Your task to perform on an android device: Go to eBay Image 0: 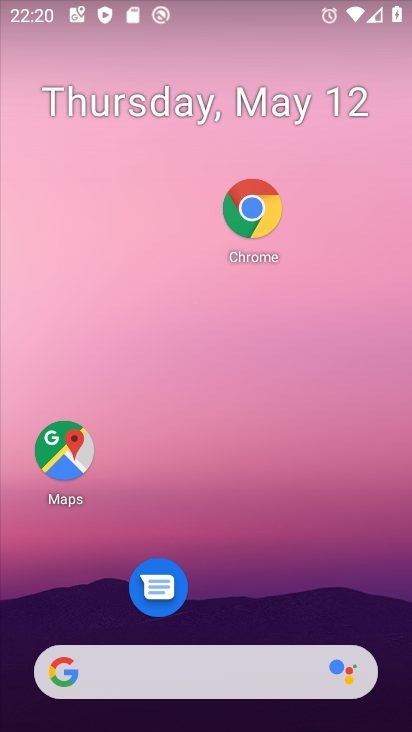
Step 0: click (251, 234)
Your task to perform on an android device: Go to eBay Image 1: 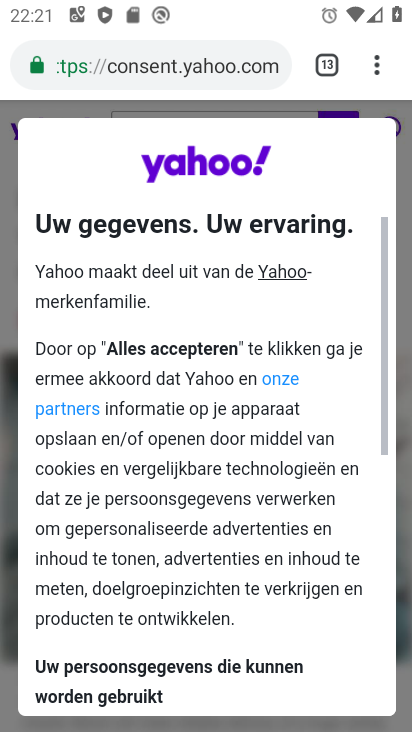
Step 1: click (365, 50)
Your task to perform on an android device: Go to eBay Image 2: 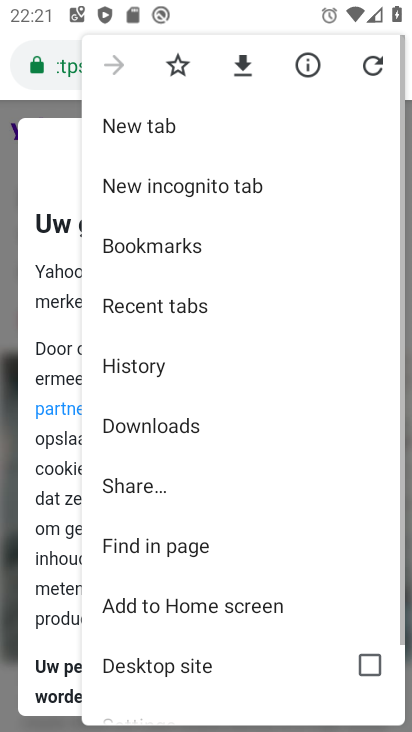
Step 2: click (177, 124)
Your task to perform on an android device: Go to eBay Image 3: 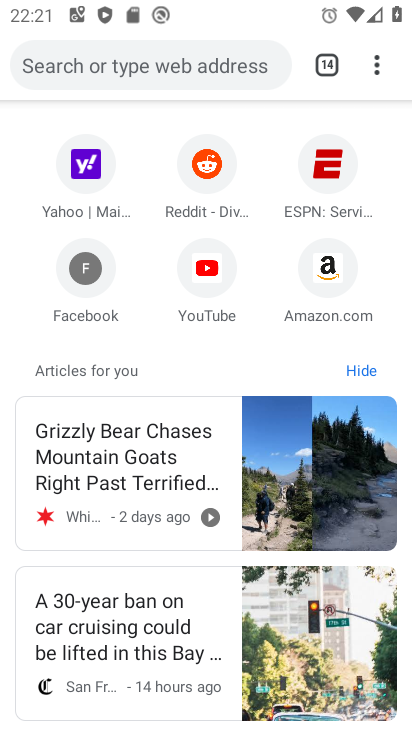
Step 3: click (188, 52)
Your task to perform on an android device: Go to eBay Image 4: 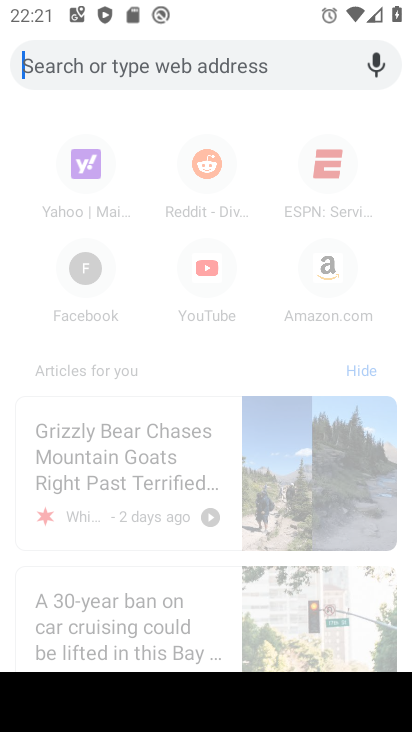
Step 4: type " eBay"
Your task to perform on an android device: Go to eBay Image 5: 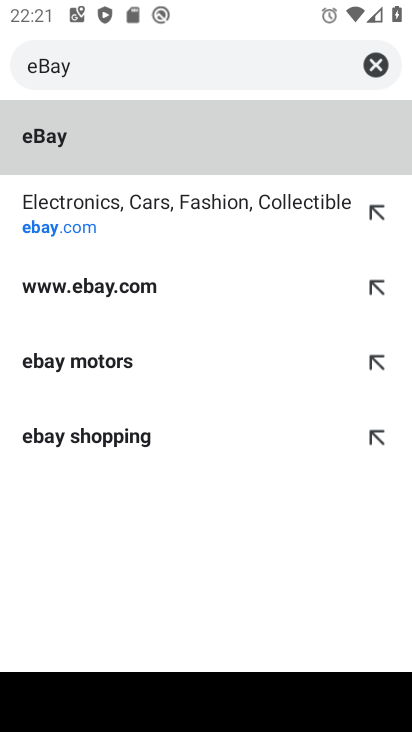
Step 5: click (86, 134)
Your task to perform on an android device: Go to eBay Image 6: 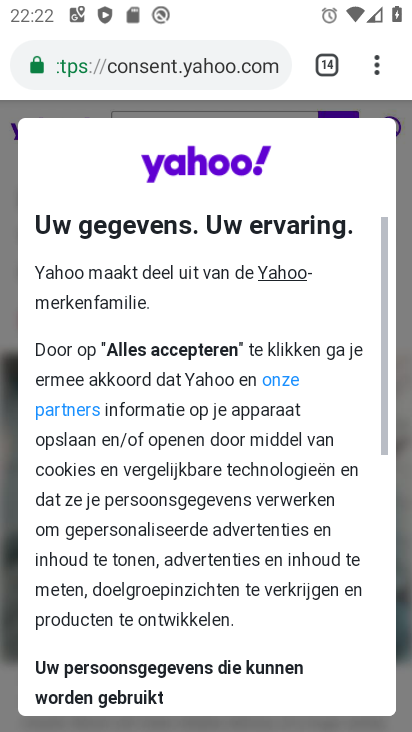
Step 6: task complete